Your task to perform on an android device: set the stopwatch Image 0: 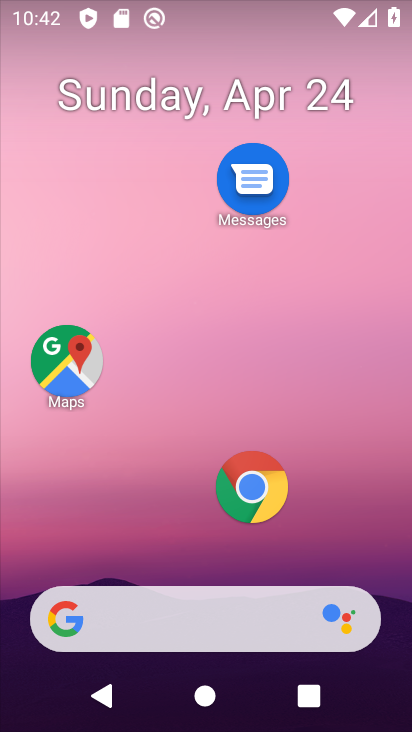
Step 0: click (71, 625)
Your task to perform on an android device: set the stopwatch Image 1: 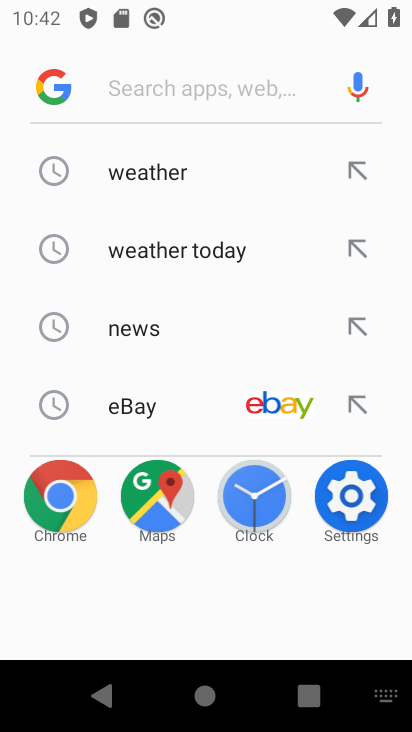
Step 1: press home button
Your task to perform on an android device: set the stopwatch Image 2: 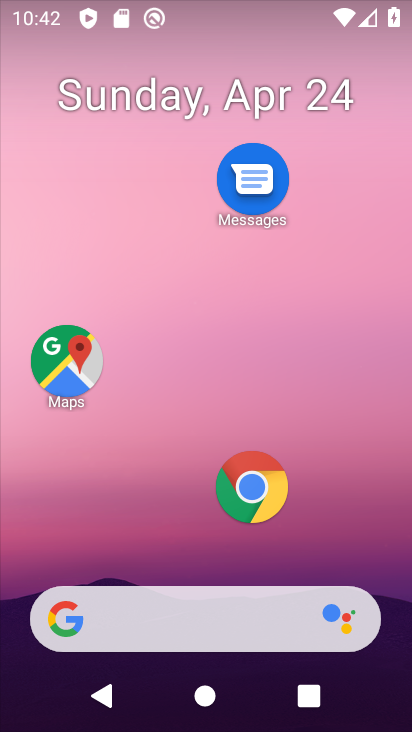
Step 2: drag from (156, 543) to (269, 6)
Your task to perform on an android device: set the stopwatch Image 3: 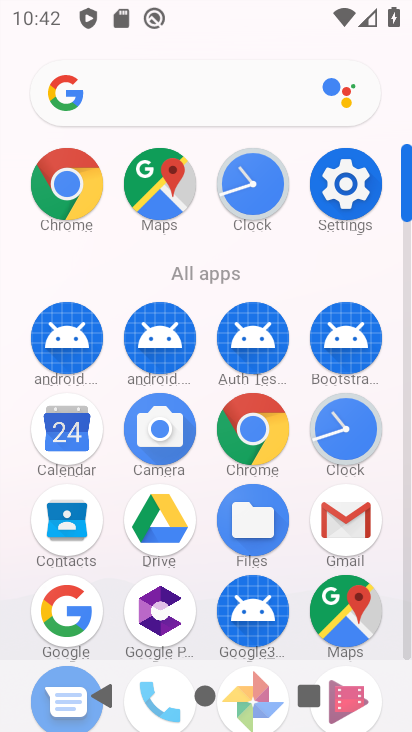
Step 3: click (340, 422)
Your task to perform on an android device: set the stopwatch Image 4: 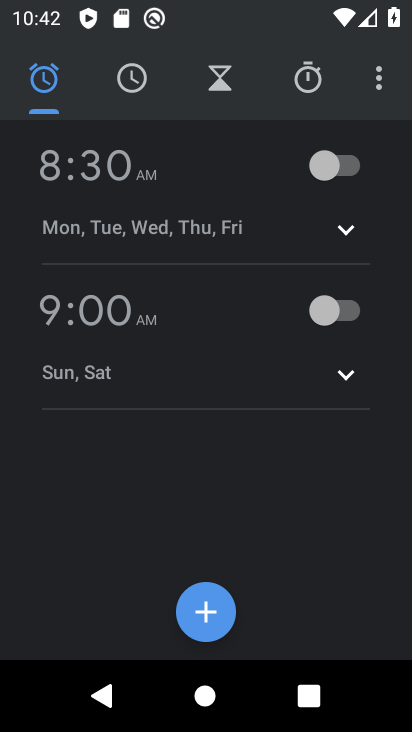
Step 4: click (305, 93)
Your task to perform on an android device: set the stopwatch Image 5: 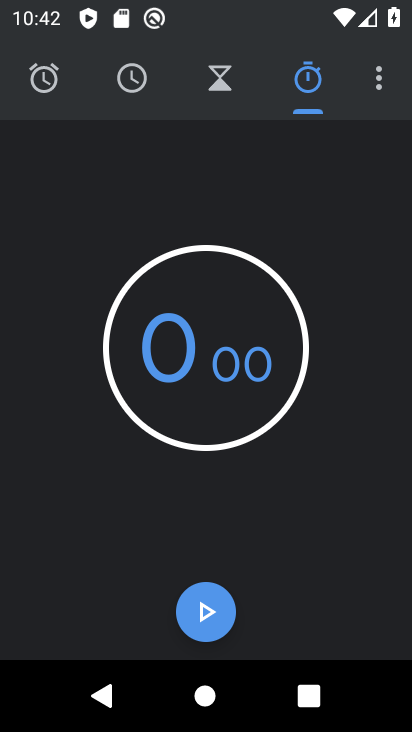
Step 5: click (200, 609)
Your task to perform on an android device: set the stopwatch Image 6: 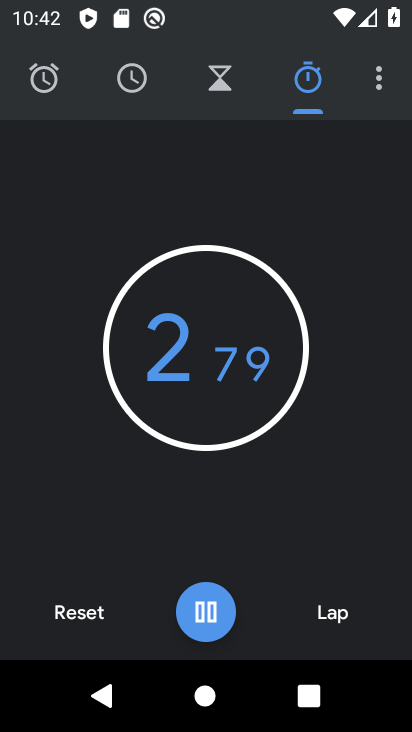
Step 6: task complete